Your task to perform on an android device: Go to Wikipedia Image 0: 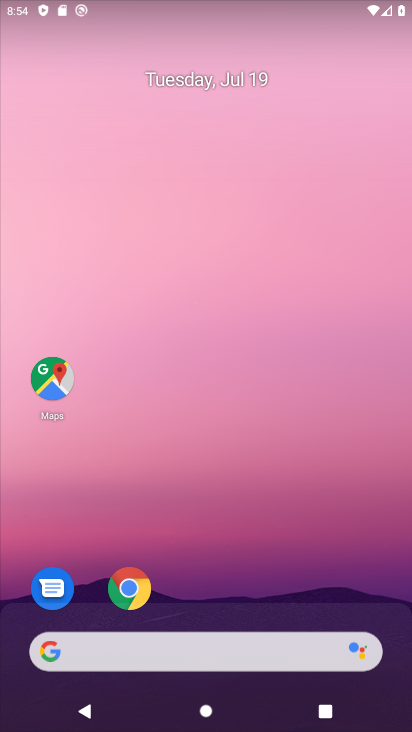
Step 0: click (122, 581)
Your task to perform on an android device: Go to Wikipedia Image 1: 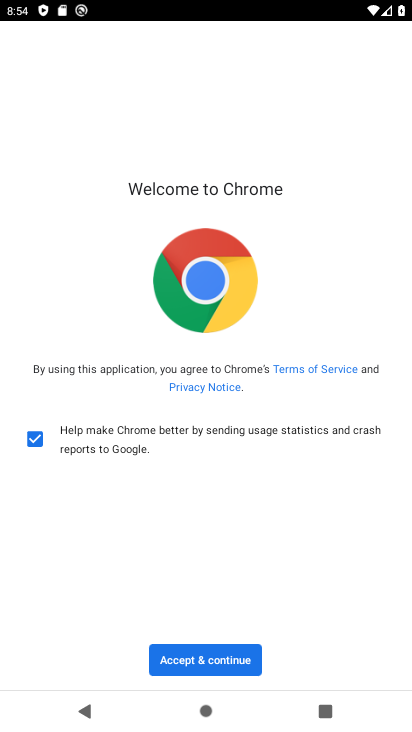
Step 1: click (191, 666)
Your task to perform on an android device: Go to Wikipedia Image 2: 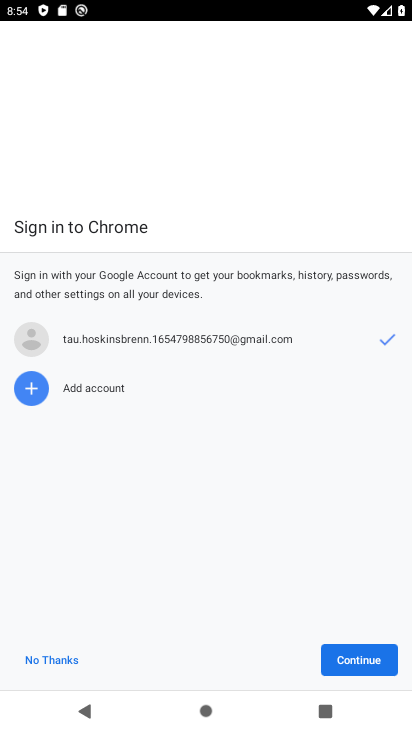
Step 2: click (355, 664)
Your task to perform on an android device: Go to Wikipedia Image 3: 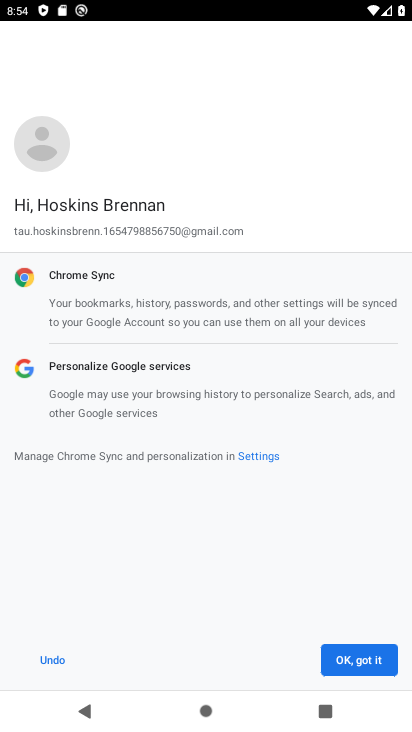
Step 3: click (355, 664)
Your task to perform on an android device: Go to Wikipedia Image 4: 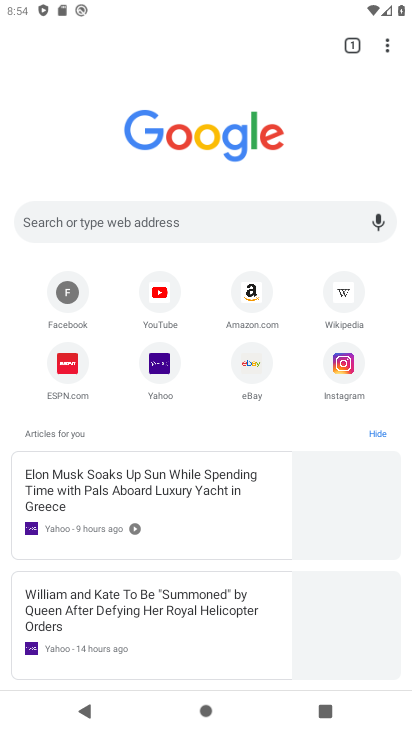
Step 4: click (350, 293)
Your task to perform on an android device: Go to Wikipedia Image 5: 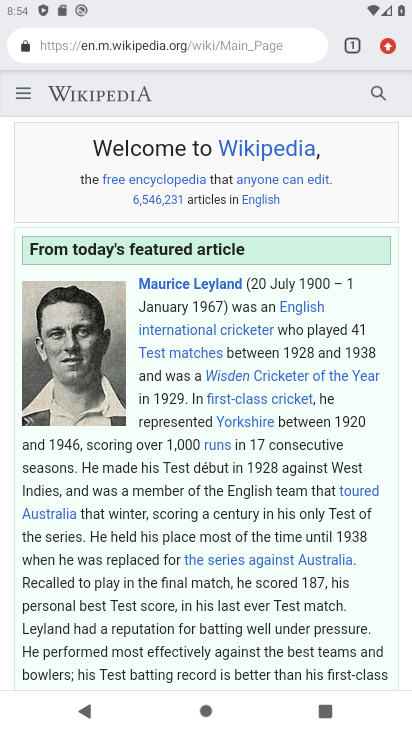
Step 5: task complete